Your task to perform on an android device: Go to battery settings Image 0: 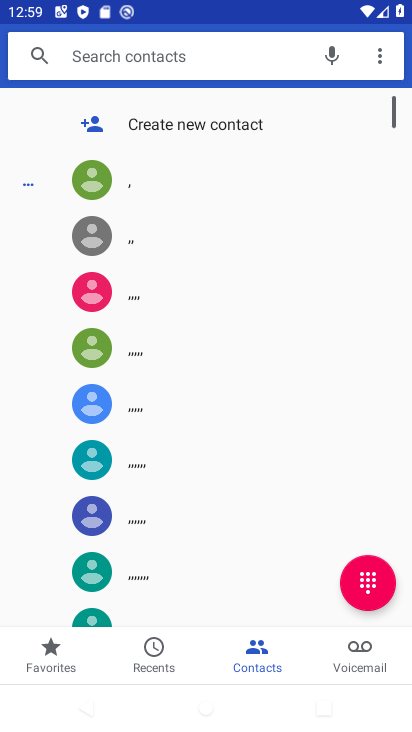
Step 0: press home button
Your task to perform on an android device: Go to battery settings Image 1: 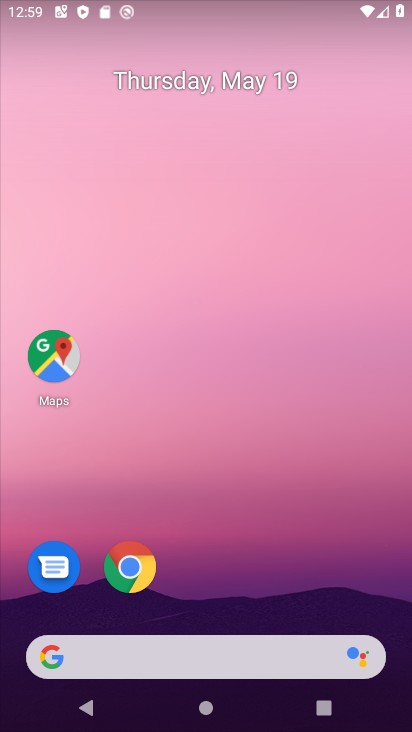
Step 1: drag from (114, 388) to (271, 68)
Your task to perform on an android device: Go to battery settings Image 2: 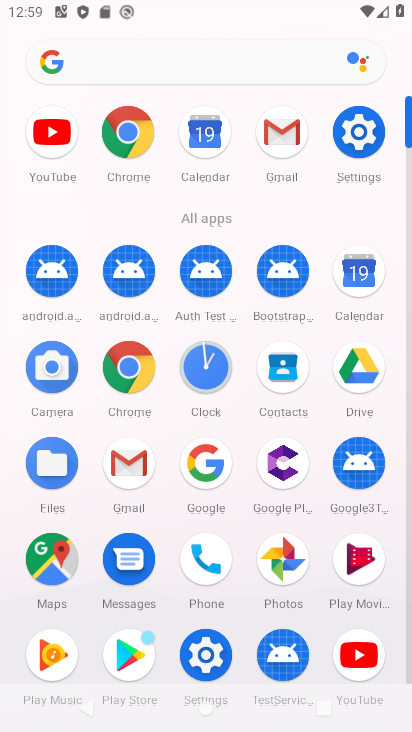
Step 2: click (366, 130)
Your task to perform on an android device: Go to battery settings Image 3: 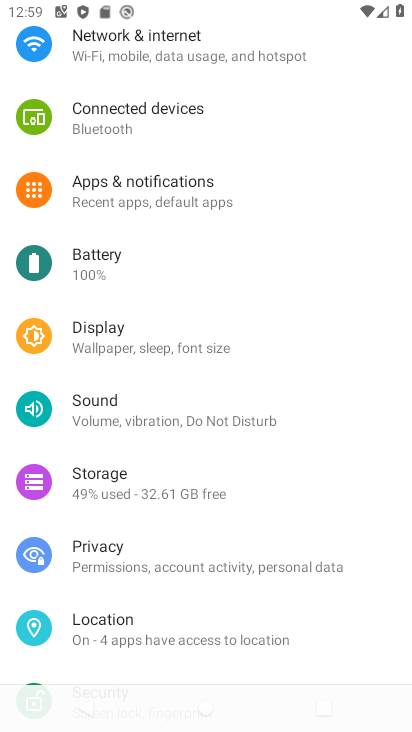
Step 3: click (65, 266)
Your task to perform on an android device: Go to battery settings Image 4: 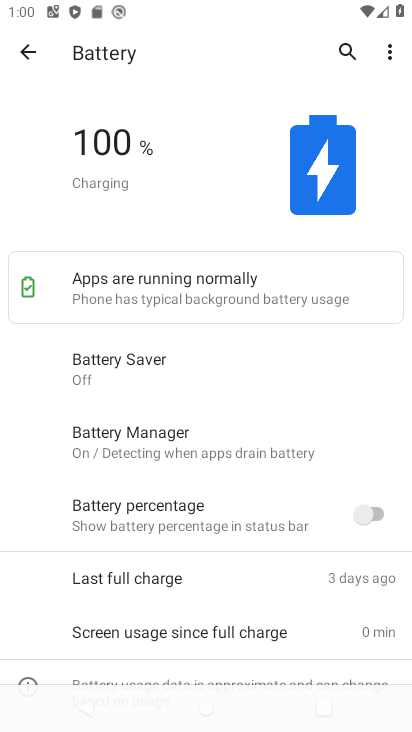
Step 4: task complete